Your task to perform on an android device: toggle sleep mode Image 0: 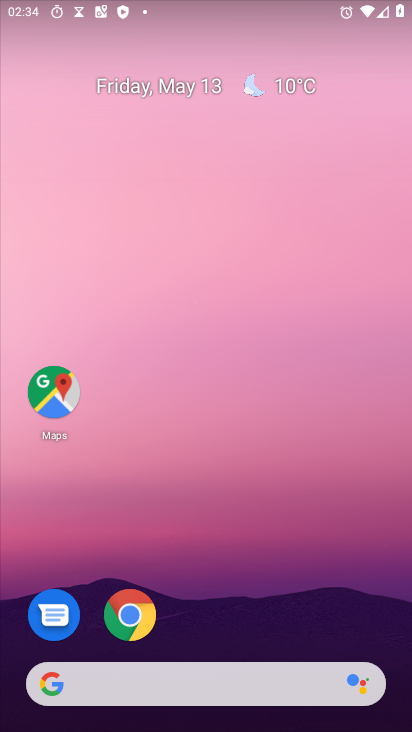
Step 0: drag from (101, 135) to (71, 61)
Your task to perform on an android device: toggle sleep mode Image 1: 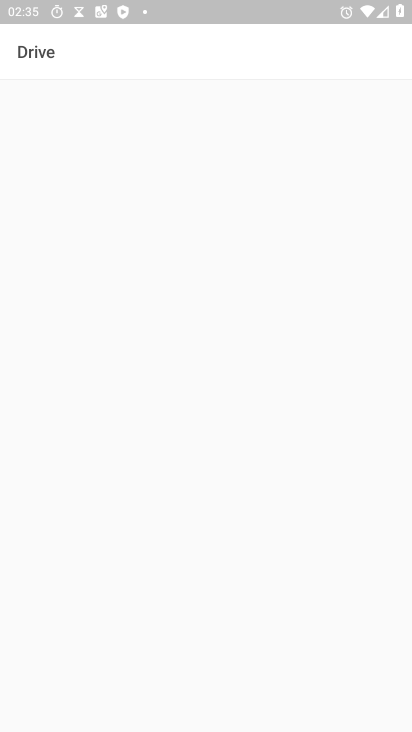
Step 1: press home button
Your task to perform on an android device: toggle sleep mode Image 2: 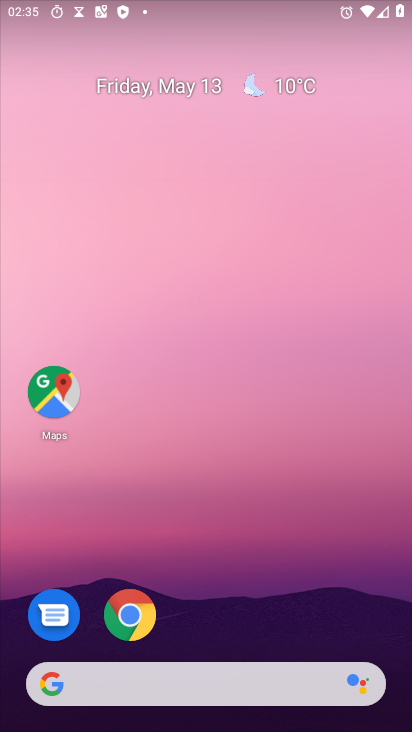
Step 2: drag from (202, 609) to (75, 164)
Your task to perform on an android device: toggle sleep mode Image 3: 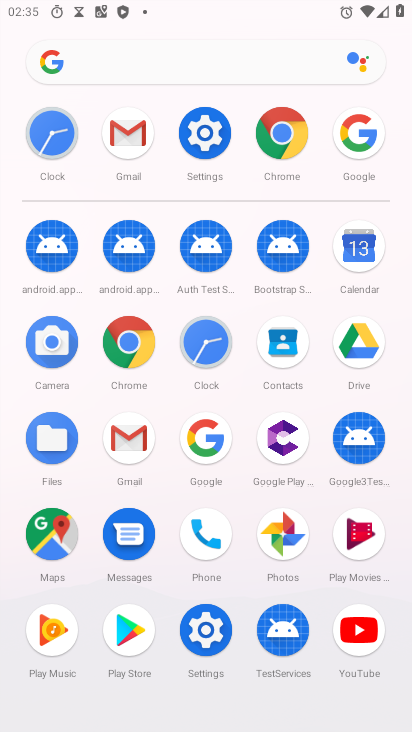
Step 3: click (199, 106)
Your task to perform on an android device: toggle sleep mode Image 4: 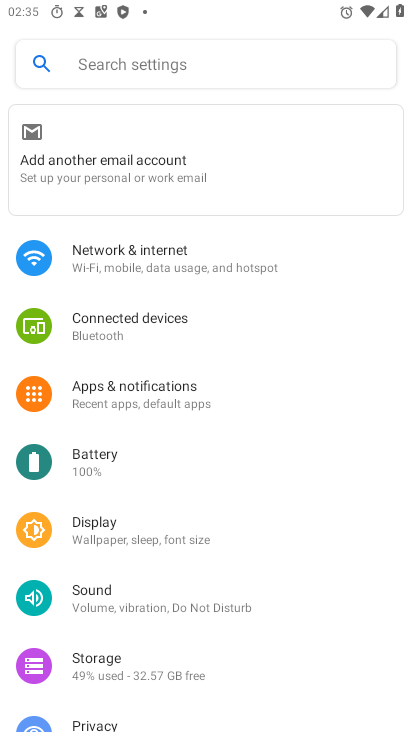
Step 4: click (165, 534)
Your task to perform on an android device: toggle sleep mode Image 5: 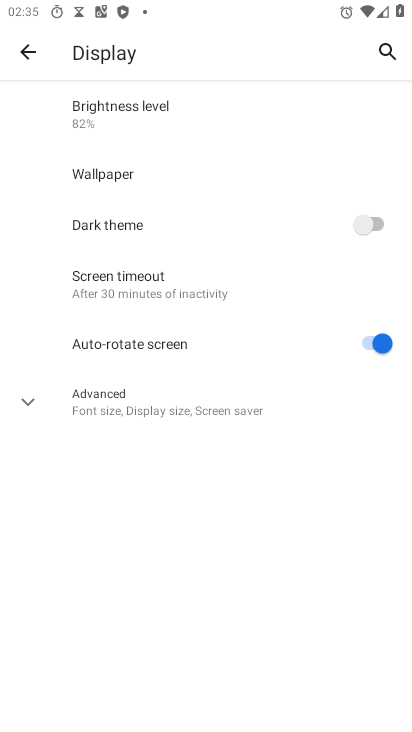
Step 5: click (107, 404)
Your task to perform on an android device: toggle sleep mode Image 6: 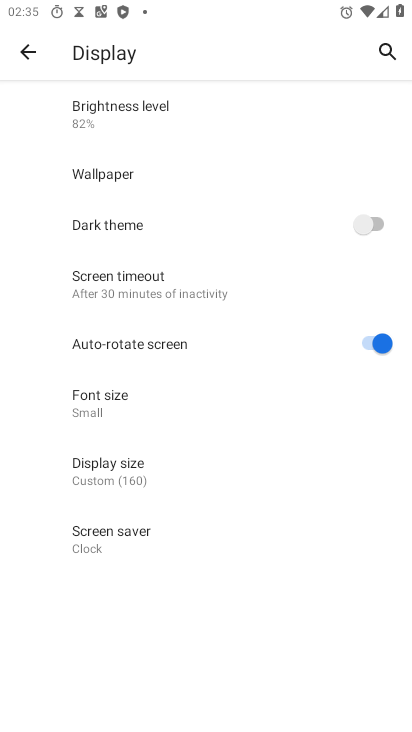
Step 6: task complete